Your task to perform on an android device: change the clock style Image 0: 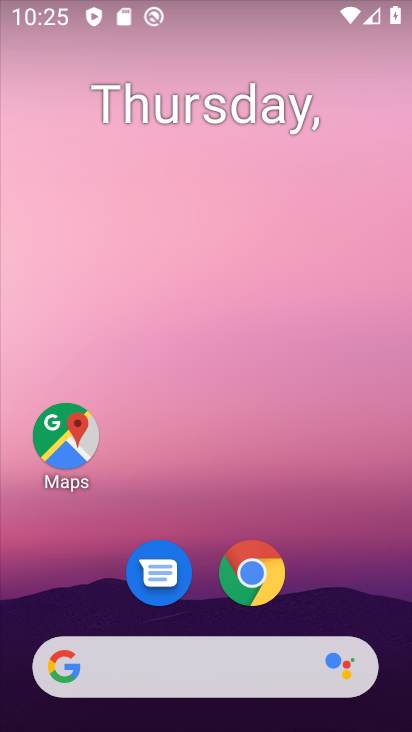
Step 0: drag from (313, 582) to (263, 65)
Your task to perform on an android device: change the clock style Image 1: 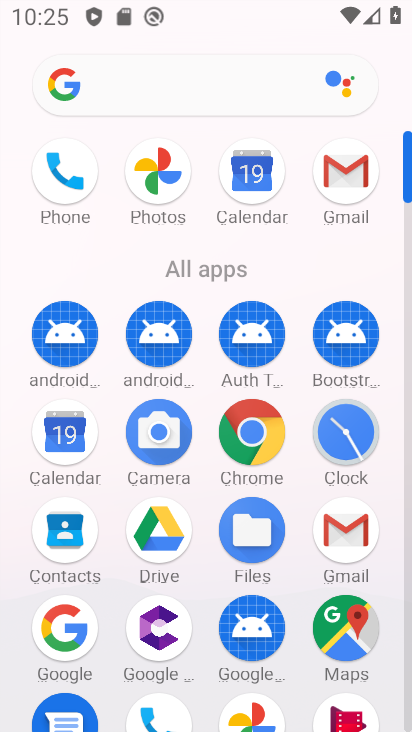
Step 1: click (352, 424)
Your task to perform on an android device: change the clock style Image 2: 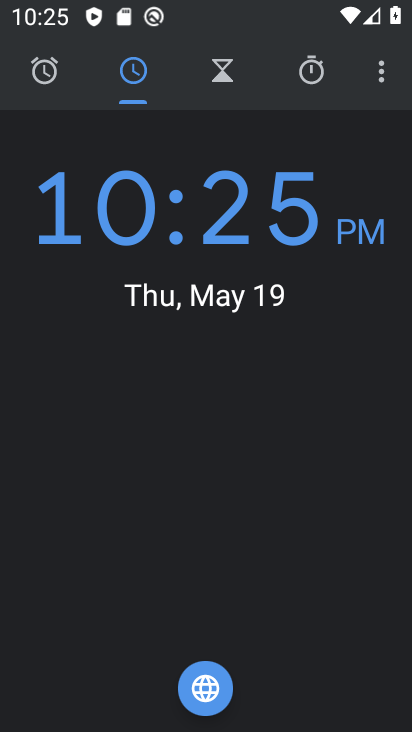
Step 2: click (382, 68)
Your task to perform on an android device: change the clock style Image 3: 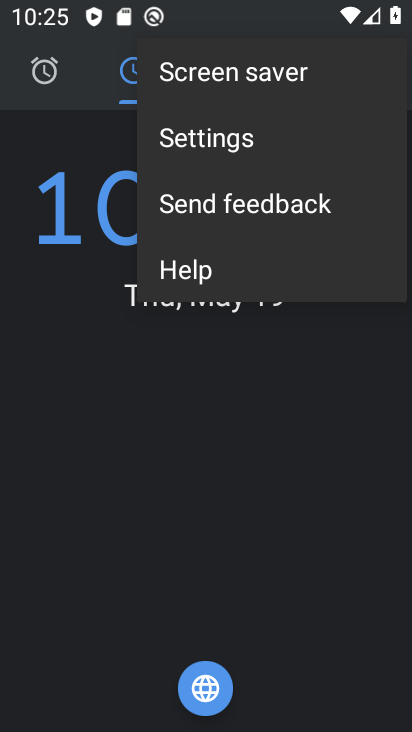
Step 3: click (225, 142)
Your task to perform on an android device: change the clock style Image 4: 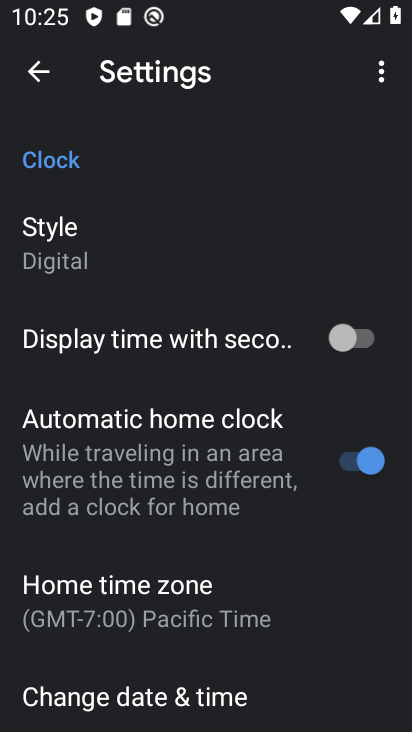
Step 4: click (77, 250)
Your task to perform on an android device: change the clock style Image 5: 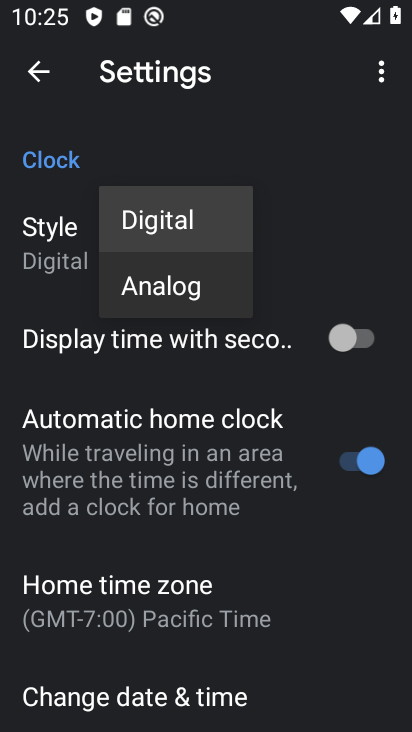
Step 5: click (136, 292)
Your task to perform on an android device: change the clock style Image 6: 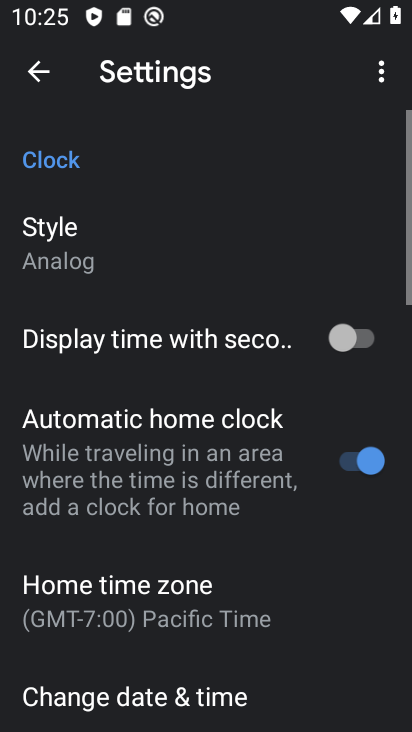
Step 6: task complete